Your task to perform on an android device: open sync settings in chrome Image 0: 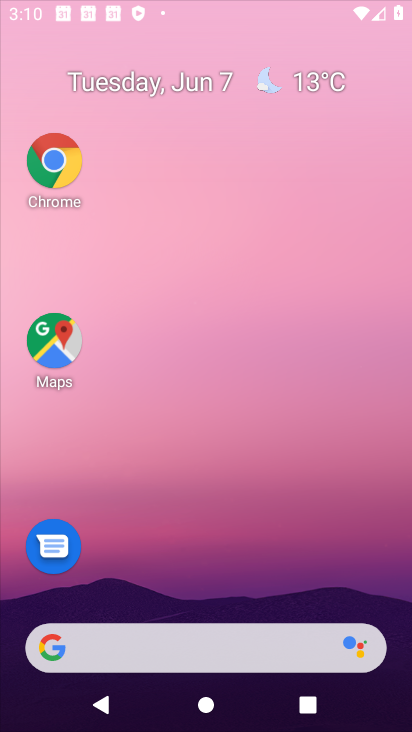
Step 0: click (280, 50)
Your task to perform on an android device: open sync settings in chrome Image 1: 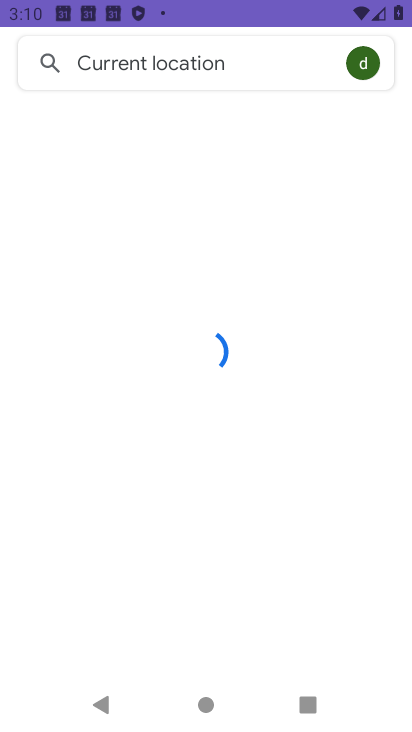
Step 1: press home button
Your task to perform on an android device: open sync settings in chrome Image 2: 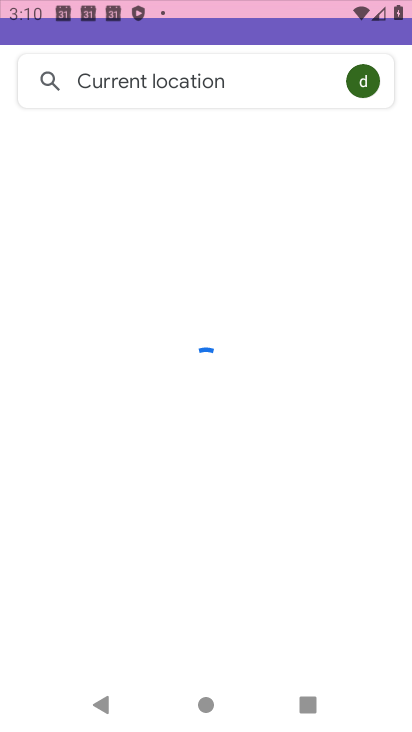
Step 2: press home button
Your task to perform on an android device: open sync settings in chrome Image 3: 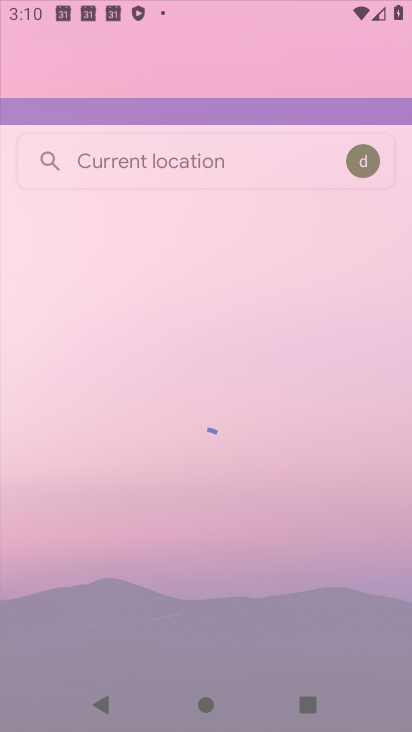
Step 3: click (241, 67)
Your task to perform on an android device: open sync settings in chrome Image 4: 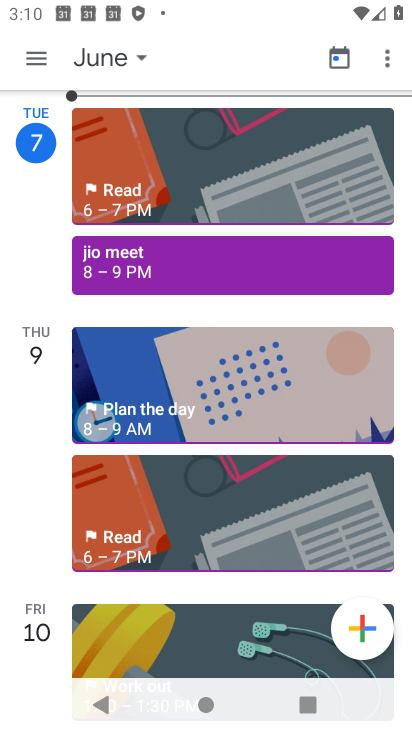
Step 4: click (64, 158)
Your task to perform on an android device: open sync settings in chrome Image 5: 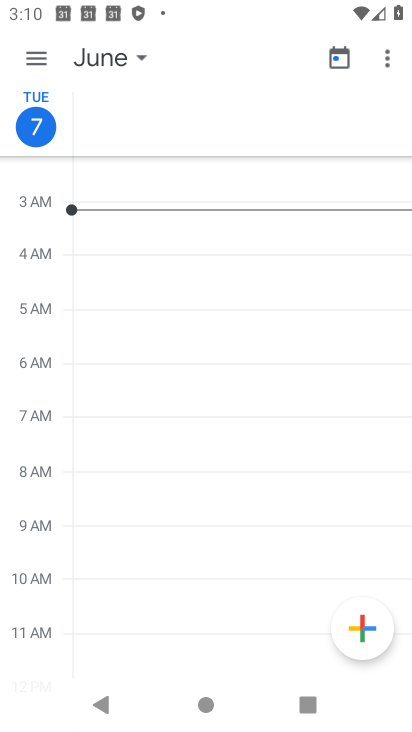
Step 5: press home button
Your task to perform on an android device: open sync settings in chrome Image 6: 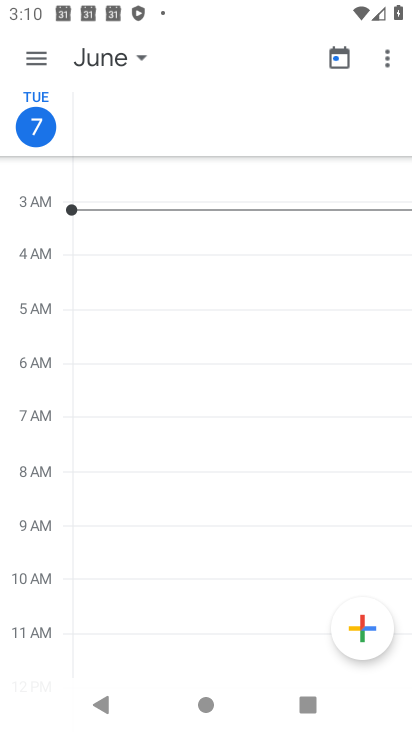
Step 6: drag from (213, 145) to (212, 36)
Your task to perform on an android device: open sync settings in chrome Image 7: 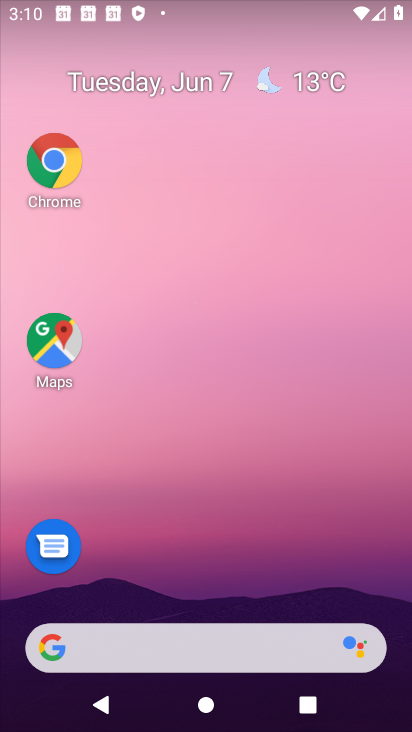
Step 7: click (40, 162)
Your task to perform on an android device: open sync settings in chrome Image 8: 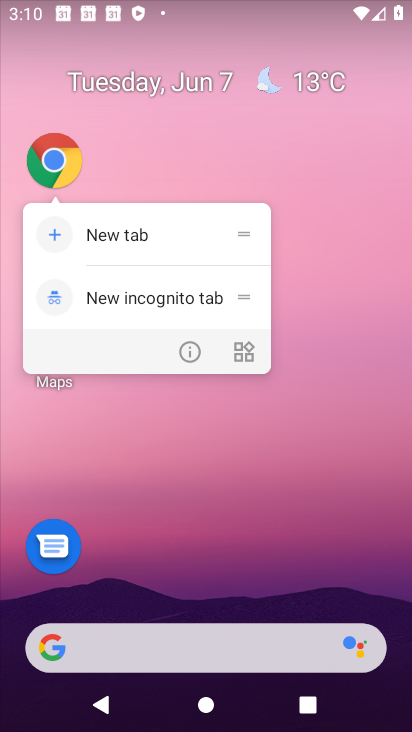
Step 8: click (176, 351)
Your task to perform on an android device: open sync settings in chrome Image 9: 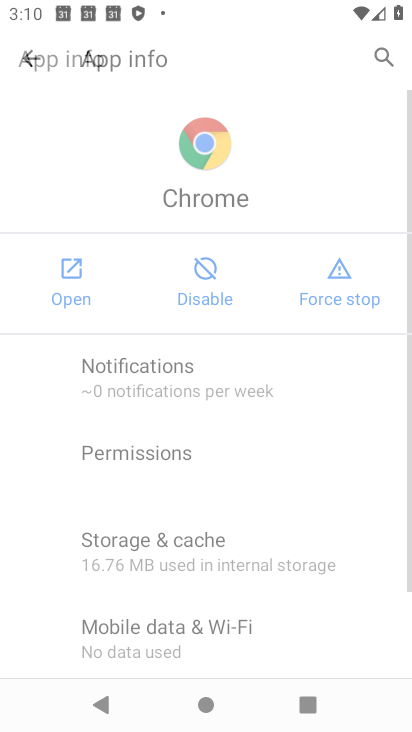
Step 9: drag from (210, 558) to (242, 65)
Your task to perform on an android device: open sync settings in chrome Image 10: 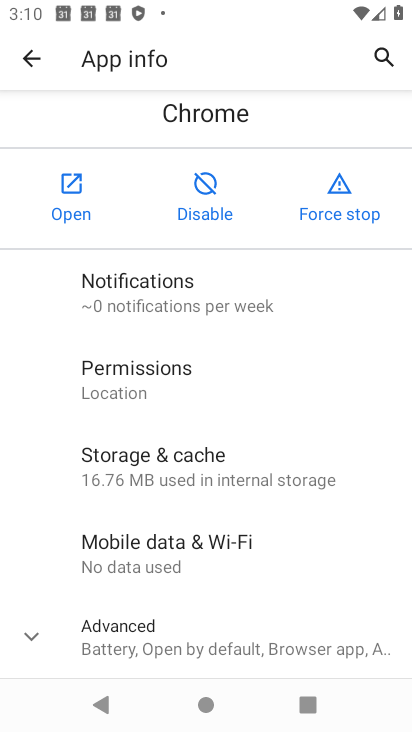
Step 10: drag from (215, 218) to (343, 604)
Your task to perform on an android device: open sync settings in chrome Image 11: 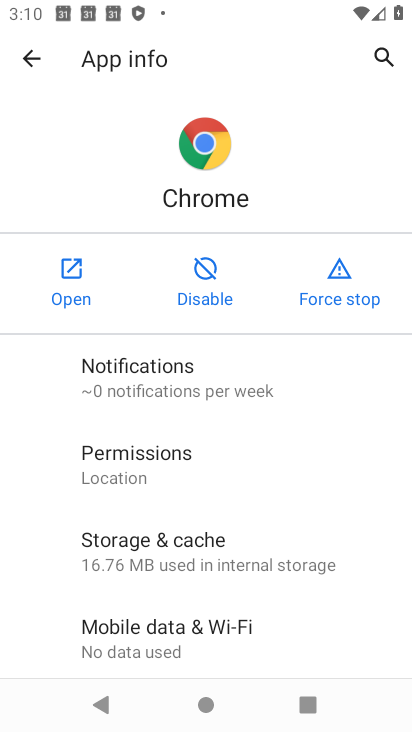
Step 11: click (70, 252)
Your task to perform on an android device: open sync settings in chrome Image 12: 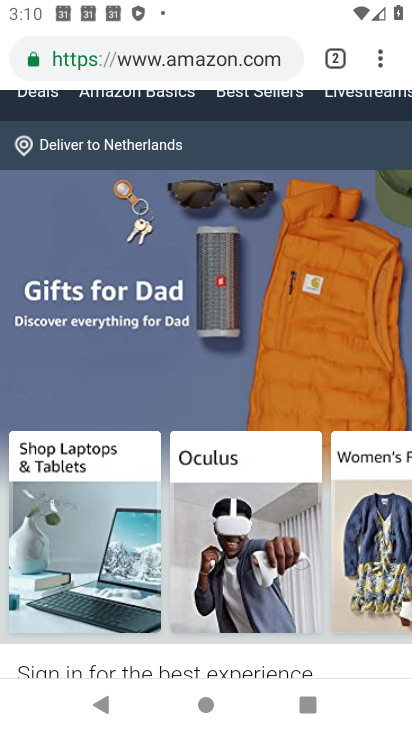
Step 12: drag from (248, 550) to (270, 145)
Your task to perform on an android device: open sync settings in chrome Image 13: 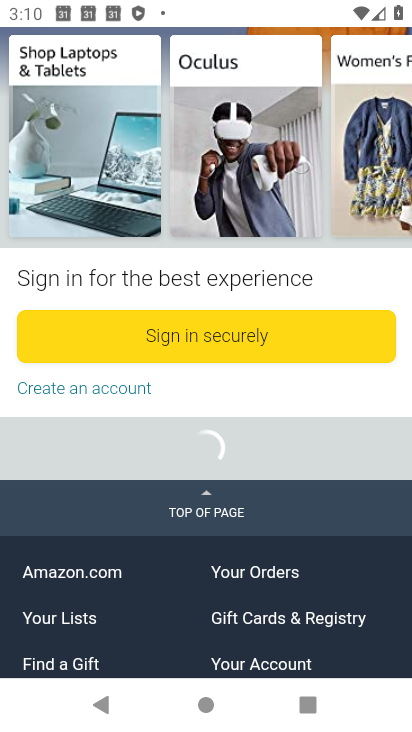
Step 13: drag from (260, 208) to (329, 728)
Your task to perform on an android device: open sync settings in chrome Image 14: 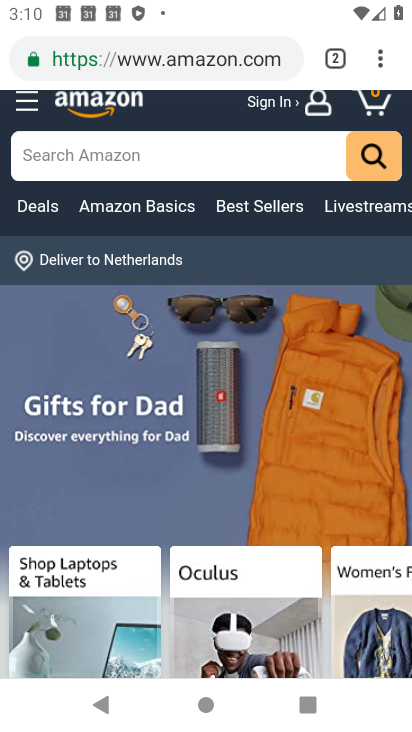
Step 14: click (379, 61)
Your task to perform on an android device: open sync settings in chrome Image 15: 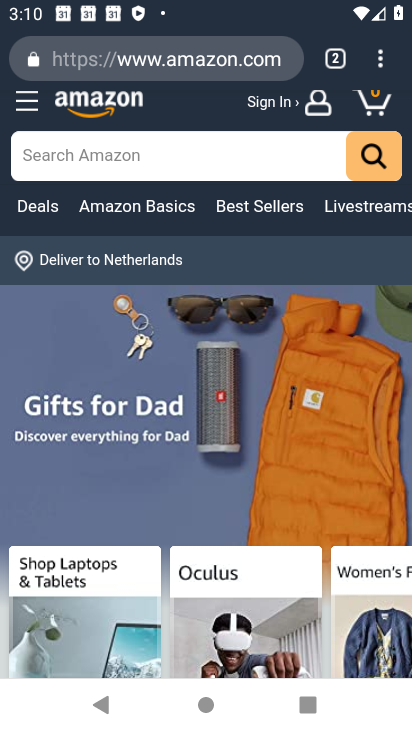
Step 15: click (386, 51)
Your task to perform on an android device: open sync settings in chrome Image 16: 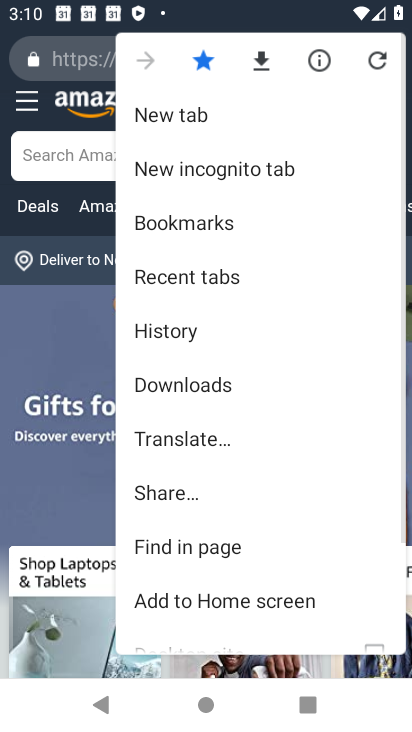
Step 16: drag from (240, 477) to (306, 32)
Your task to perform on an android device: open sync settings in chrome Image 17: 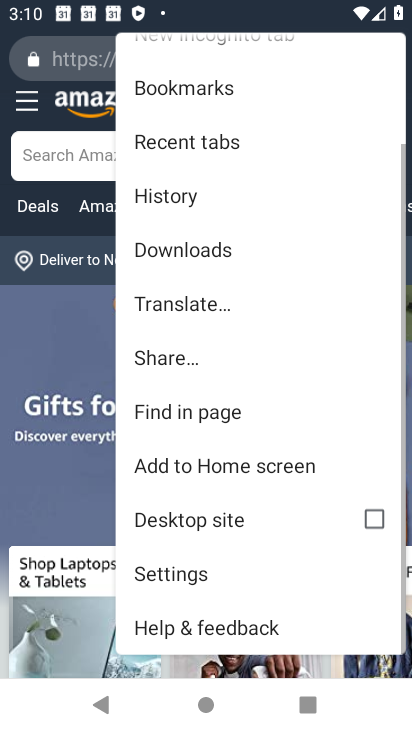
Step 17: click (208, 570)
Your task to perform on an android device: open sync settings in chrome Image 18: 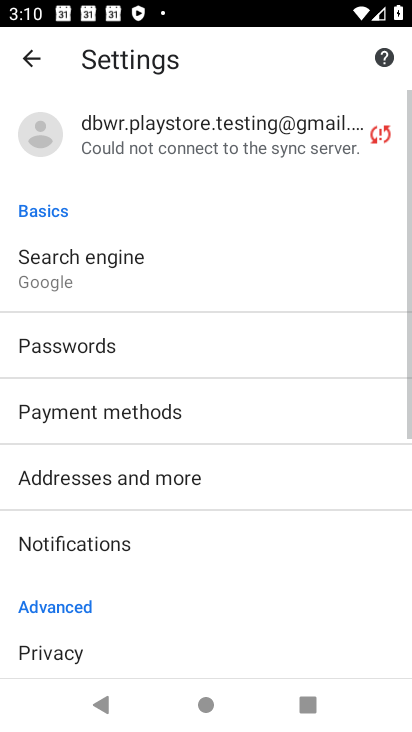
Step 18: drag from (162, 539) to (165, 271)
Your task to perform on an android device: open sync settings in chrome Image 19: 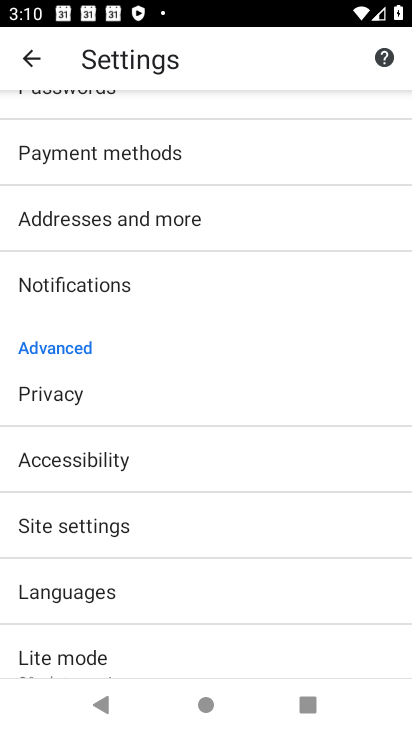
Step 19: click (177, 535)
Your task to perform on an android device: open sync settings in chrome Image 20: 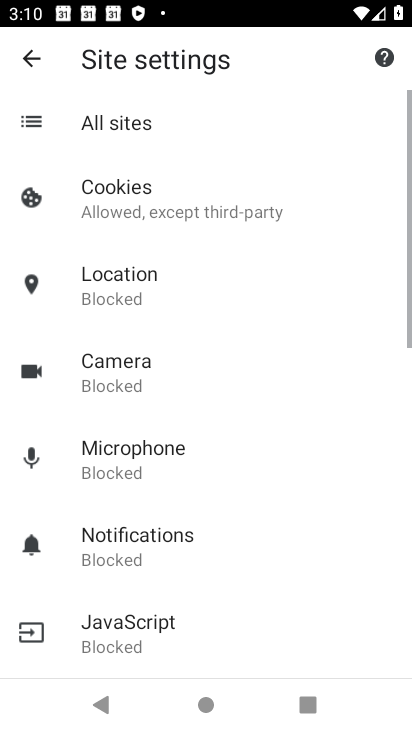
Step 20: drag from (189, 574) to (278, 174)
Your task to perform on an android device: open sync settings in chrome Image 21: 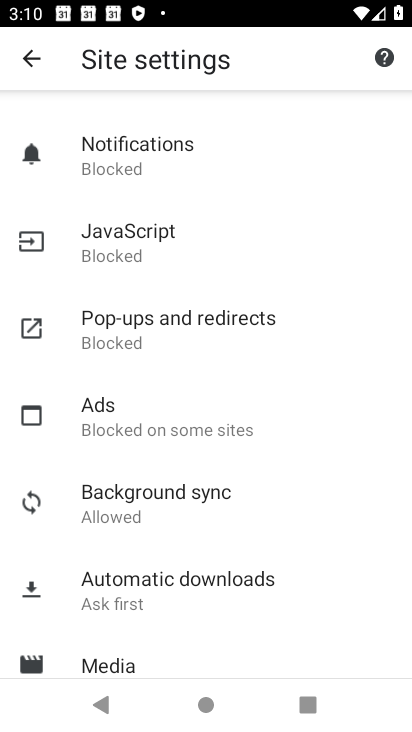
Step 21: click (194, 504)
Your task to perform on an android device: open sync settings in chrome Image 22: 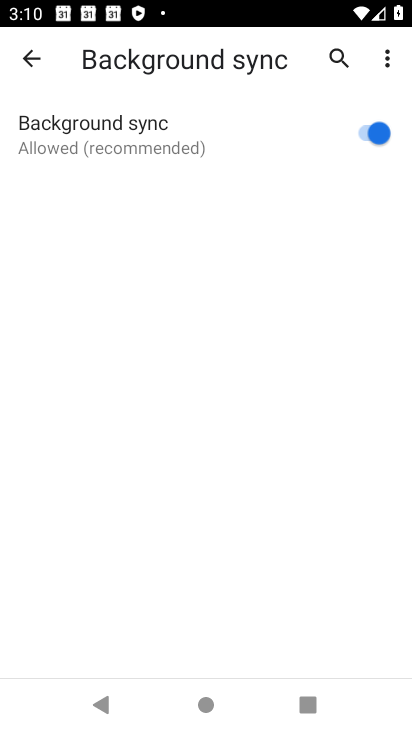
Step 22: task complete